Your task to perform on an android device: Go to internet settings Image 0: 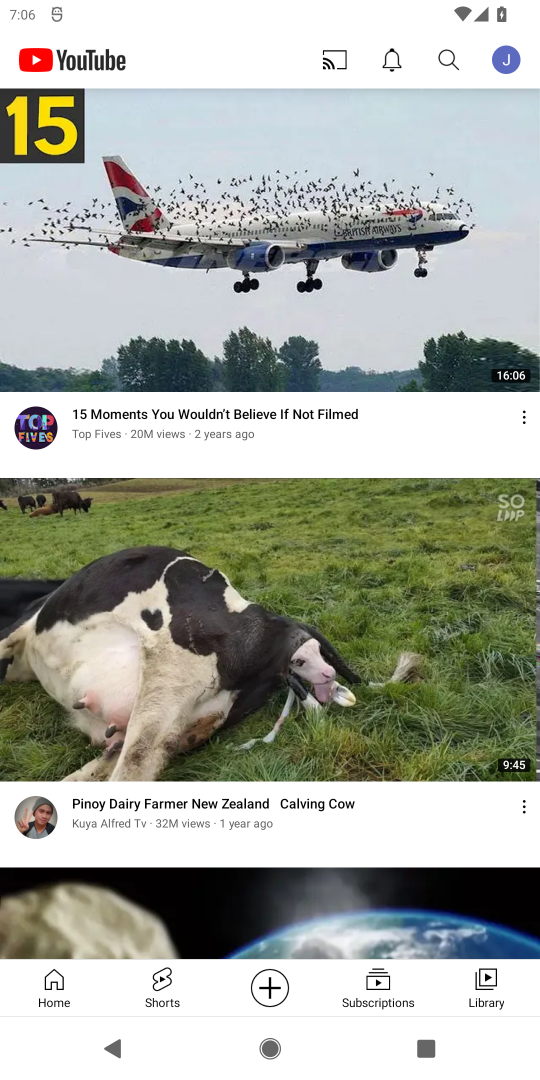
Step 0: press home button
Your task to perform on an android device: Go to internet settings Image 1: 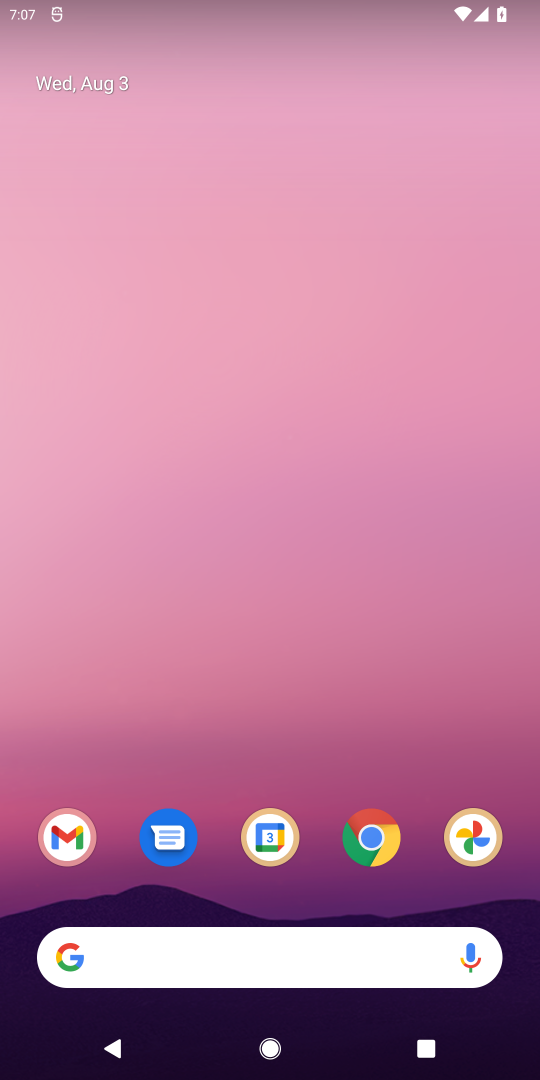
Step 1: drag from (310, 752) to (324, 216)
Your task to perform on an android device: Go to internet settings Image 2: 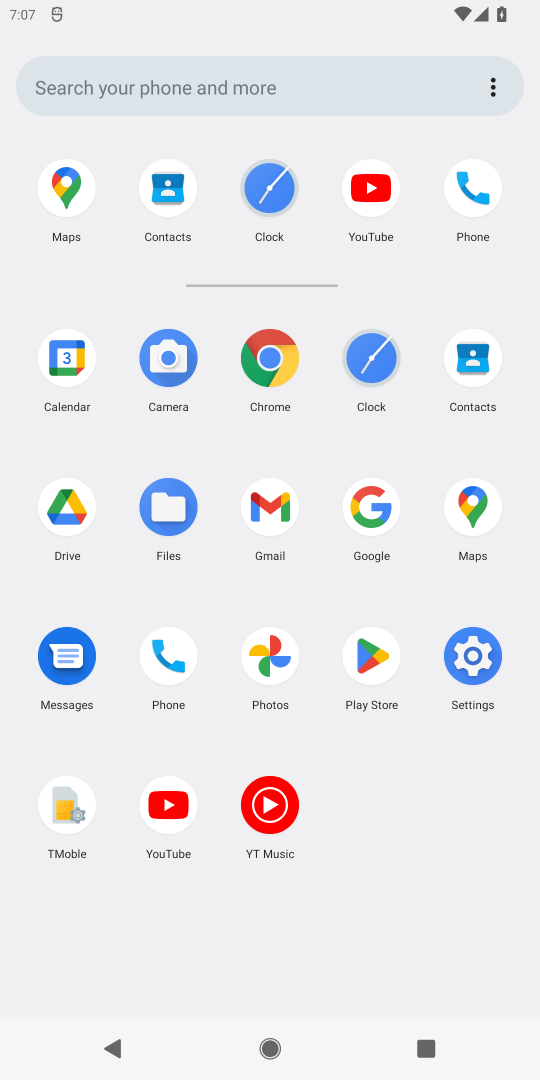
Step 2: click (452, 630)
Your task to perform on an android device: Go to internet settings Image 3: 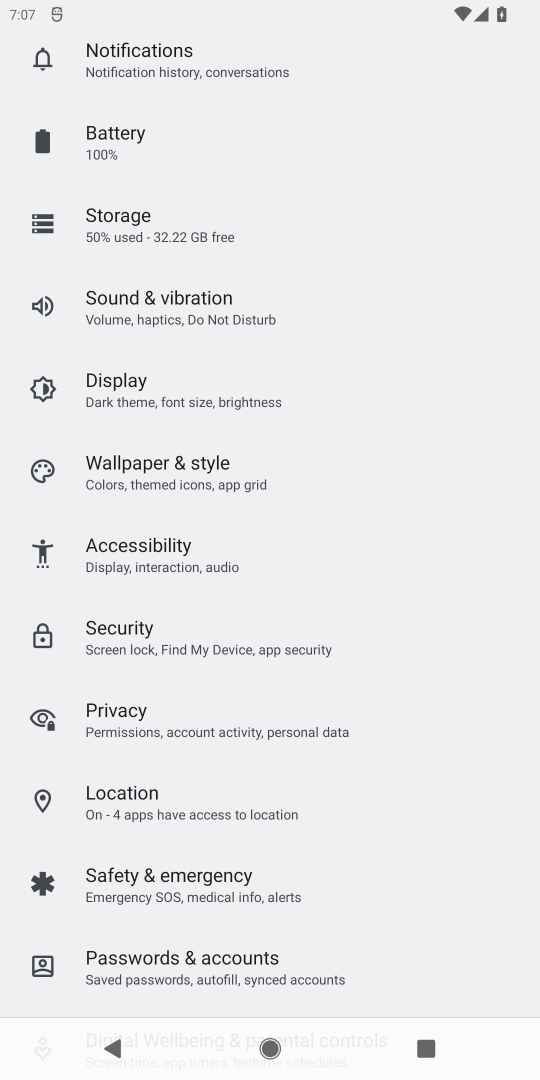
Step 3: drag from (196, 111) to (178, 705)
Your task to perform on an android device: Go to internet settings Image 4: 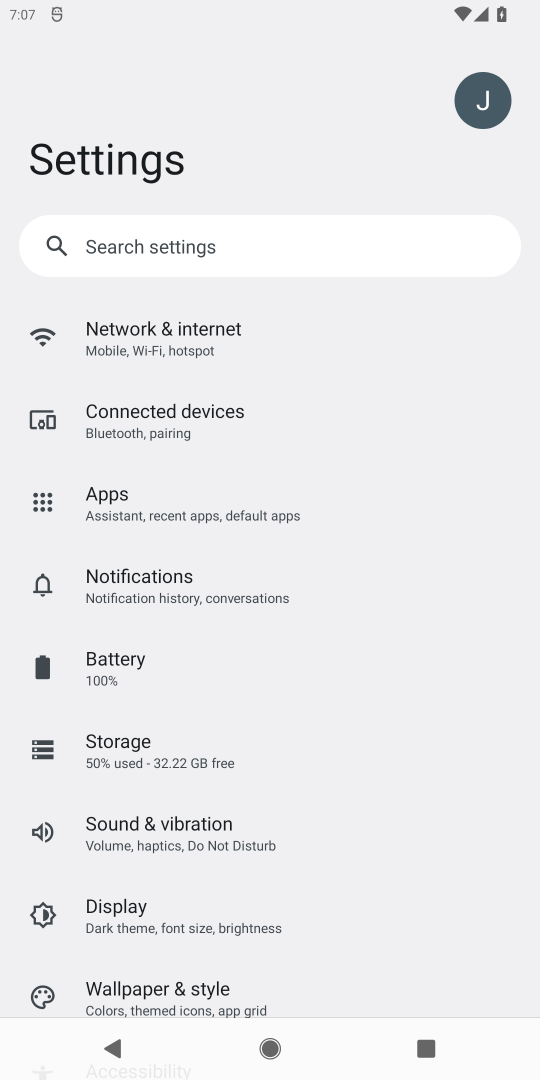
Step 4: click (164, 349)
Your task to perform on an android device: Go to internet settings Image 5: 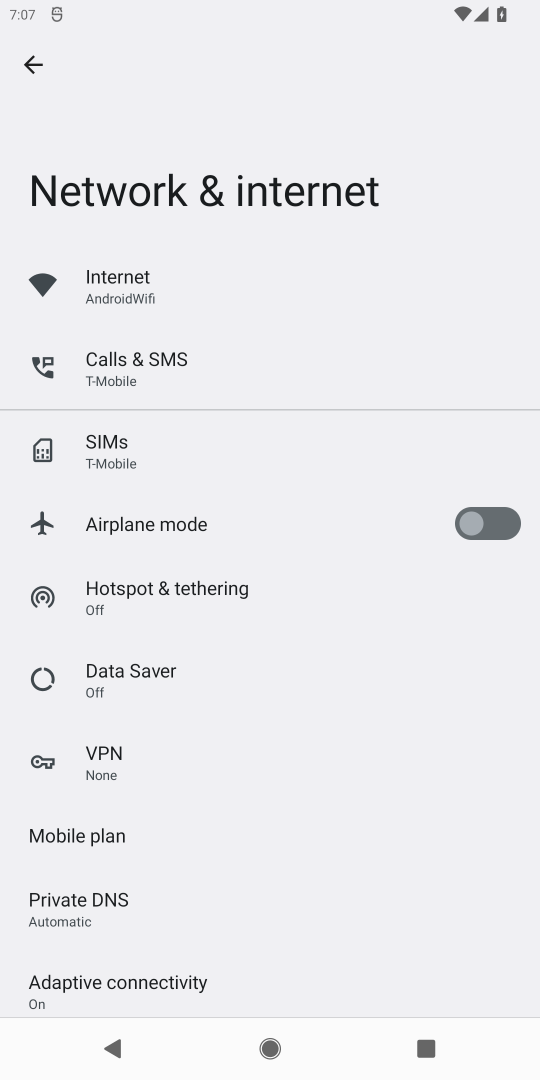
Step 5: click (130, 301)
Your task to perform on an android device: Go to internet settings Image 6: 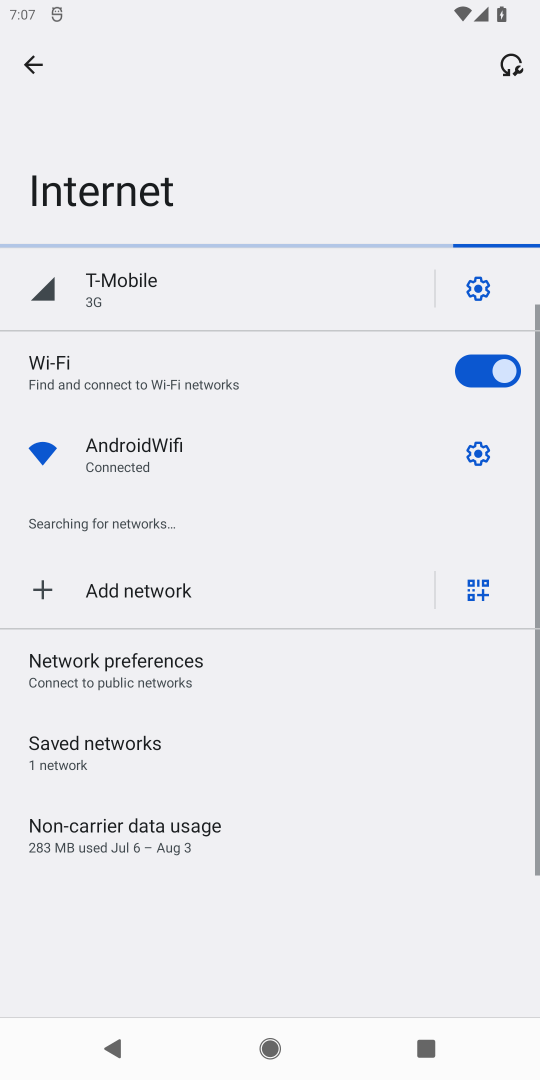
Step 6: task complete